Your task to perform on an android device: Go to ESPN.com Image 0: 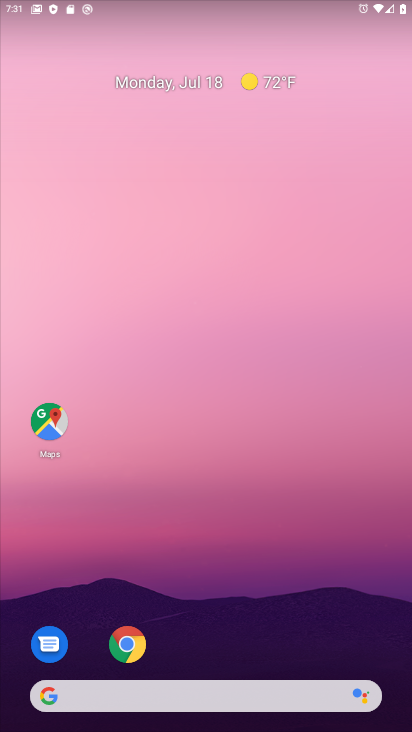
Step 0: drag from (402, 668) to (195, 92)
Your task to perform on an android device: Go to ESPN.com Image 1: 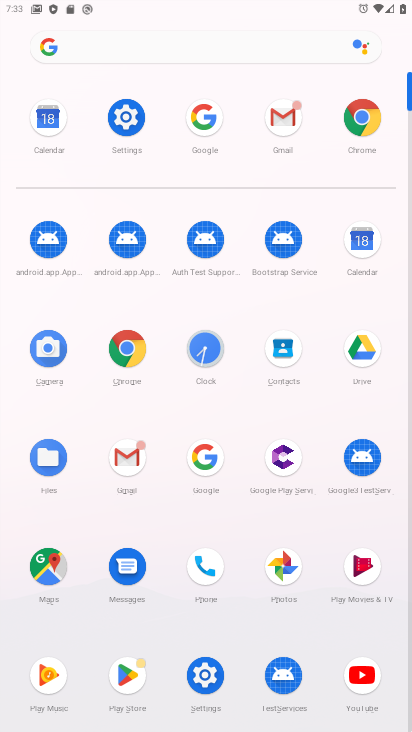
Step 1: click (207, 460)
Your task to perform on an android device: Go to ESPN.com Image 2: 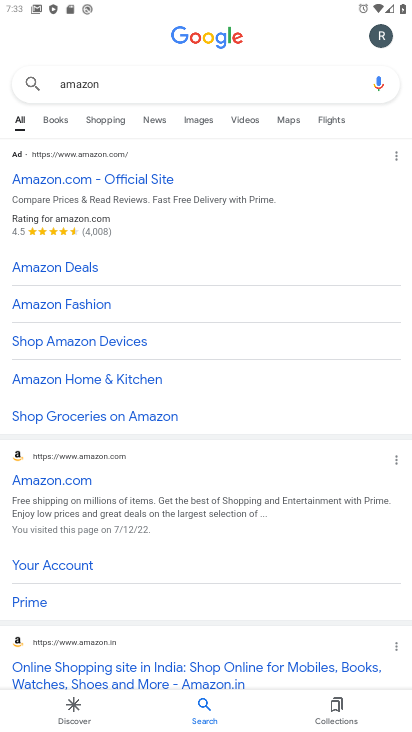
Step 2: press back button
Your task to perform on an android device: Go to ESPN.com Image 3: 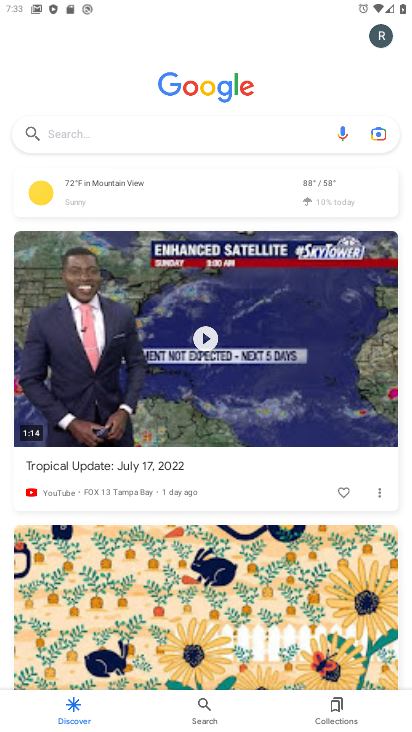
Step 3: click (119, 134)
Your task to perform on an android device: Go to ESPN.com Image 4: 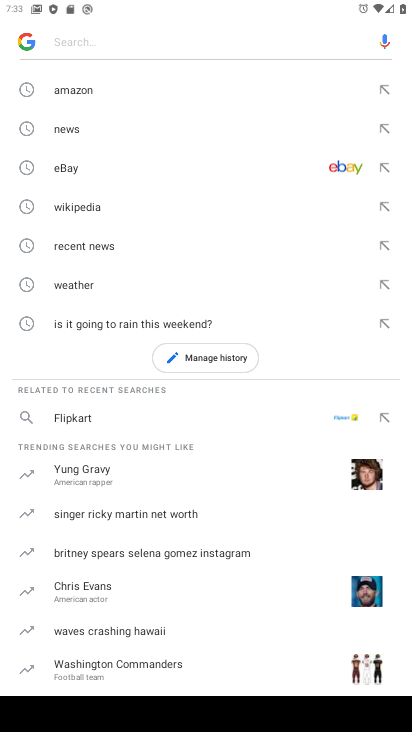
Step 4: type "ESPN.com"
Your task to perform on an android device: Go to ESPN.com Image 5: 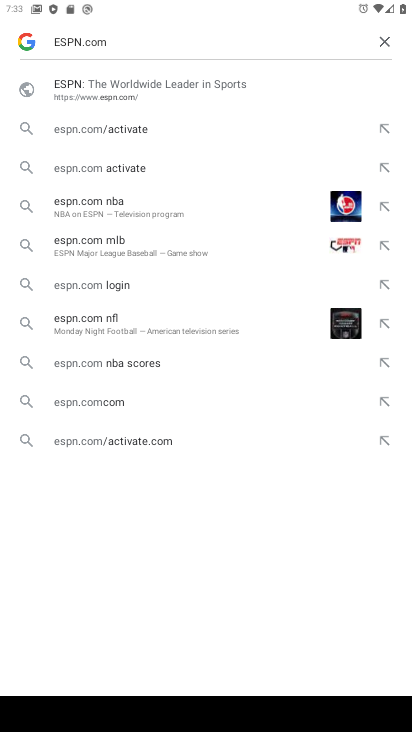
Step 5: click (81, 82)
Your task to perform on an android device: Go to ESPN.com Image 6: 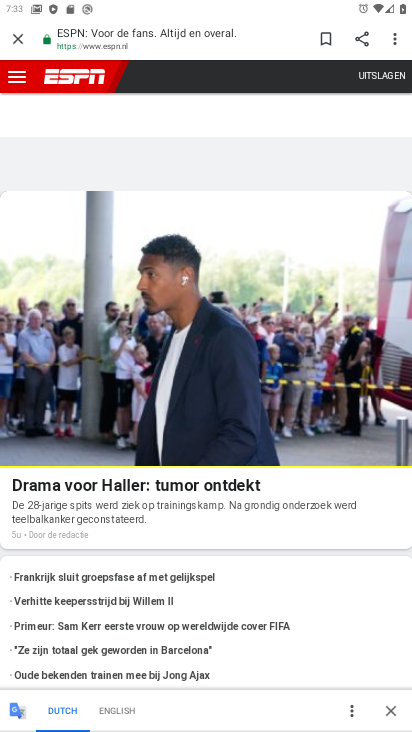
Step 6: task complete